Your task to perform on an android device: check out phone information Image 0: 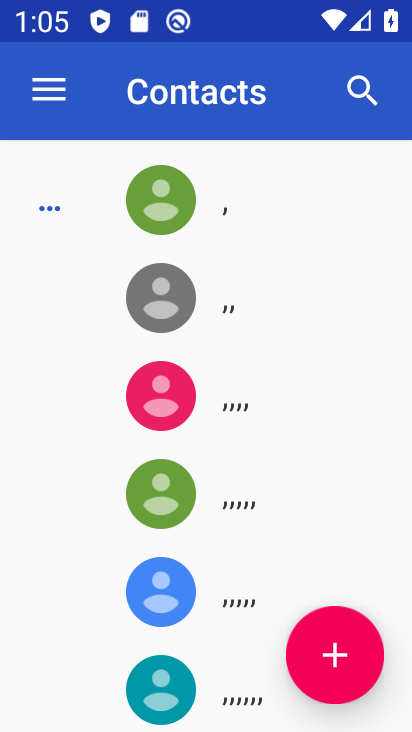
Step 0: press home button
Your task to perform on an android device: check out phone information Image 1: 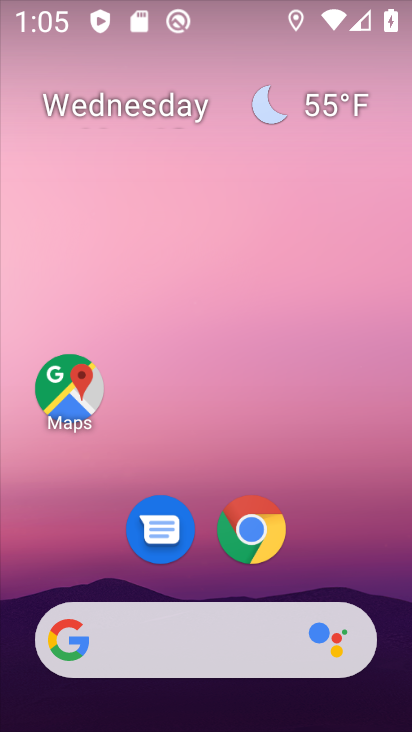
Step 1: drag from (193, 725) to (189, 210)
Your task to perform on an android device: check out phone information Image 2: 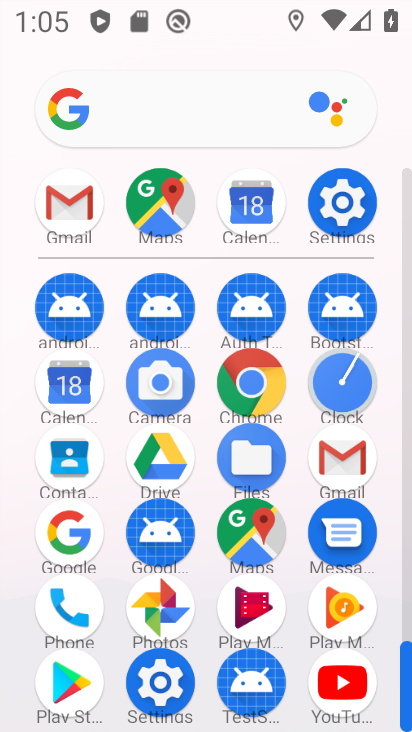
Step 2: click (344, 199)
Your task to perform on an android device: check out phone information Image 3: 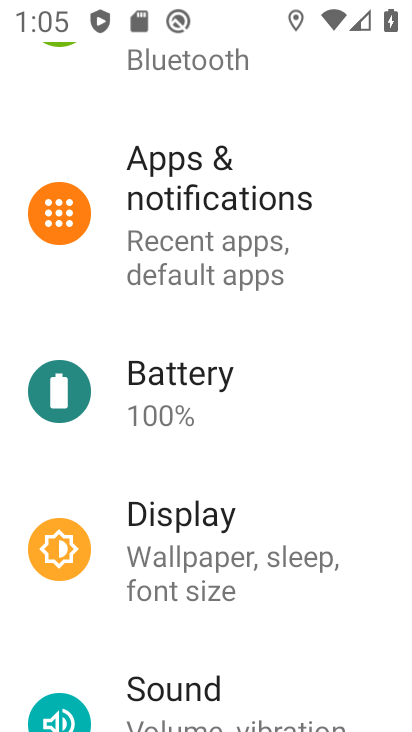
Step 3: drag from (207, 711) to (185, 273)
Your task to perform on an android device: check out phone information Image 4: 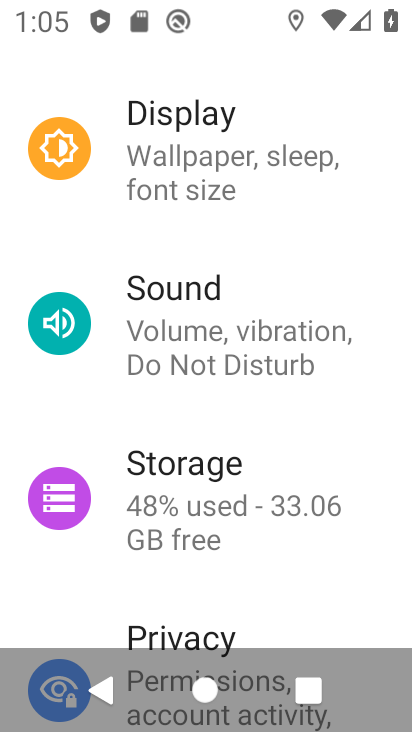
Step 4: drag from (226, 611) to (216, 198)
Your task to perform on an android device: check out phone information Image 5: 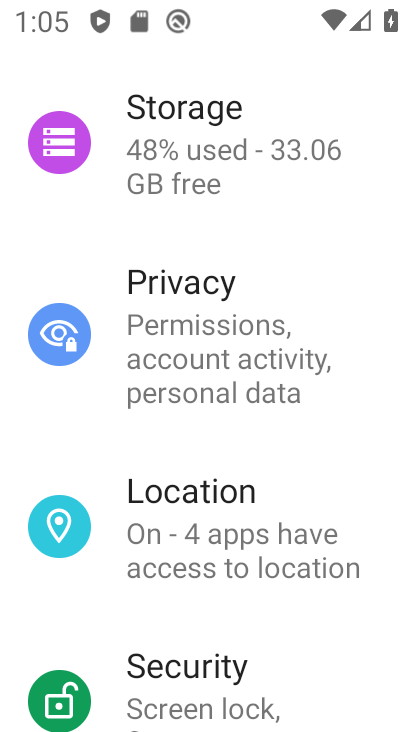
Step 5: drag from (215, 659) to (214, 224)
Your task to perform on an android device: check out phone information Image 6: 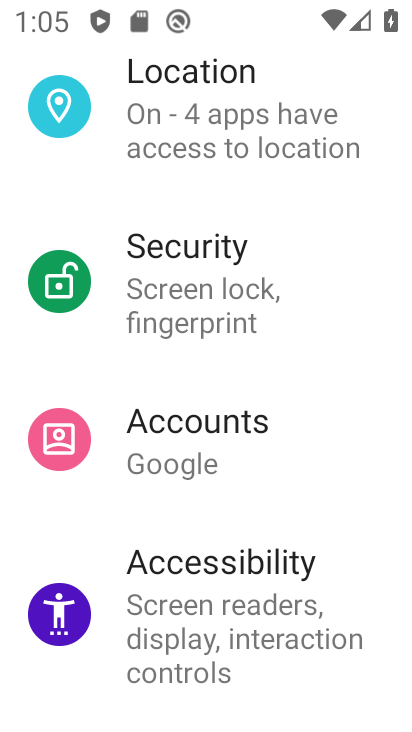
Step 6: drag from (220, 649) to (205, 327)
Your task to perform on an android device: check out phone information Image 7: 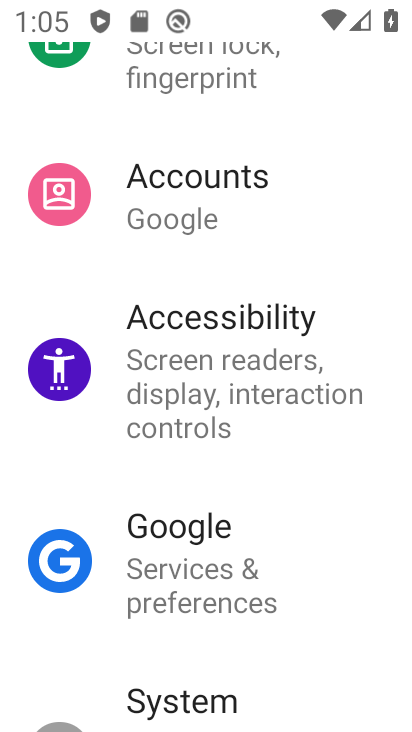
Step 7: drag from (239, 682) to (251, 335)
Your task to perform on an android device: check out phone information Image 8: 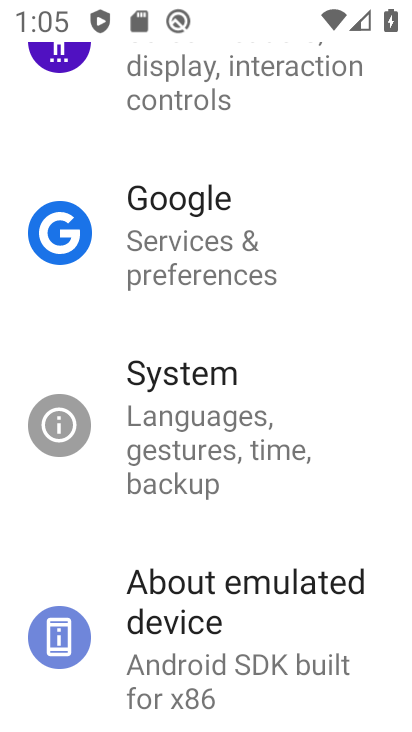
Step 8: drag from (216, 682) to (222, 439)
Your task to perform on an android device: check out phone information Image 9: 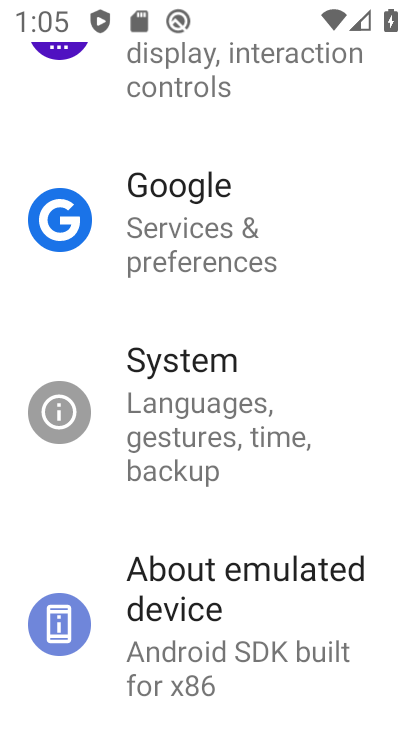
Step 9: drag from (225, 690) to (231, 379)
Your task to perform on an android device: check out phone information Image 10: 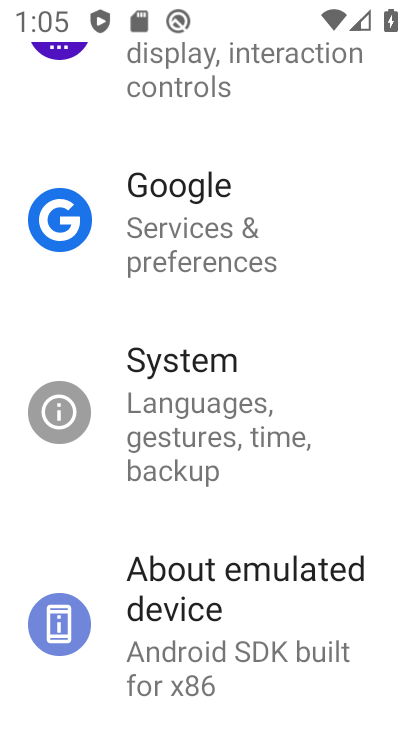
Step 10: click (140, 624)
Your task to perform on an android device: check out phone information Image 11: 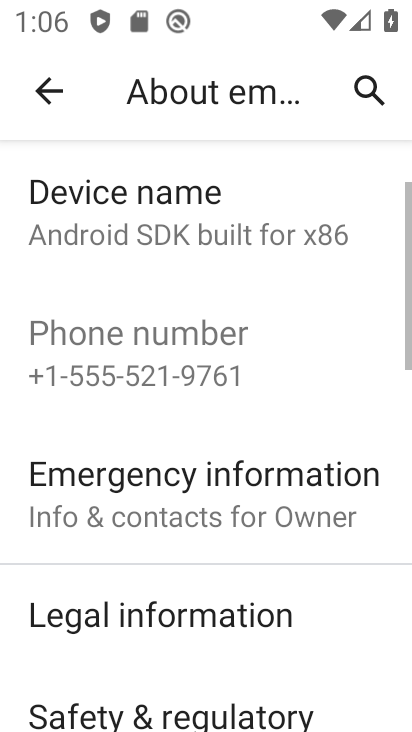
Step 11: task complete